Your task to perform on an android device: Find coffee shops on Maps Image 0: 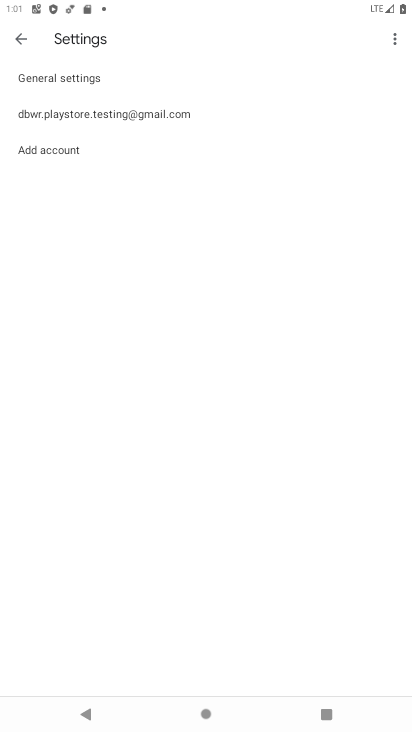
Step 0: press home button
Your task to perform on an android device: Find coffee shops on Maps Image 1: 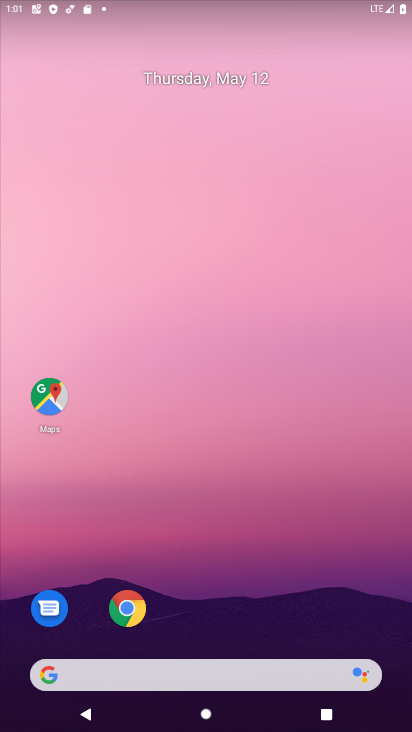
Step 1: click (49, 393)
Your task to perform on an android device: Find coffee shops on Maps Image 2: 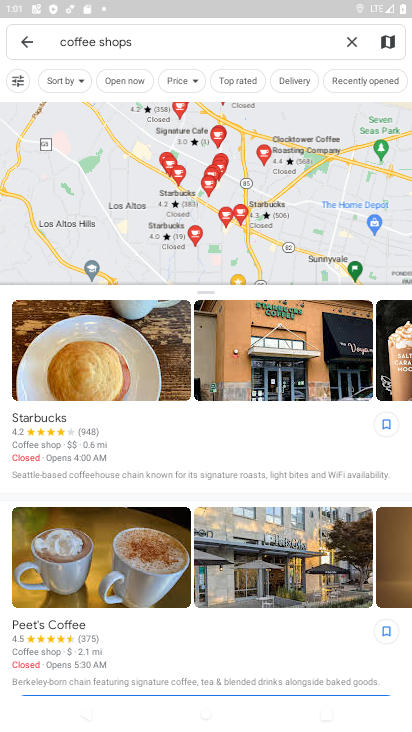
Step 2: task complete